Your task to perform on an android device: turn on javascript in the chrome app Image 0: 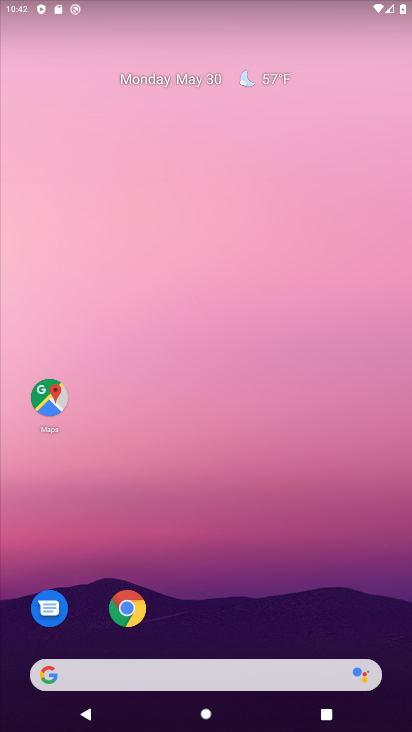
Step 0: drag from (282, 573) to (259, 0)
Your task to perform on an android device: turn on javascript in the chrome app Image 1: 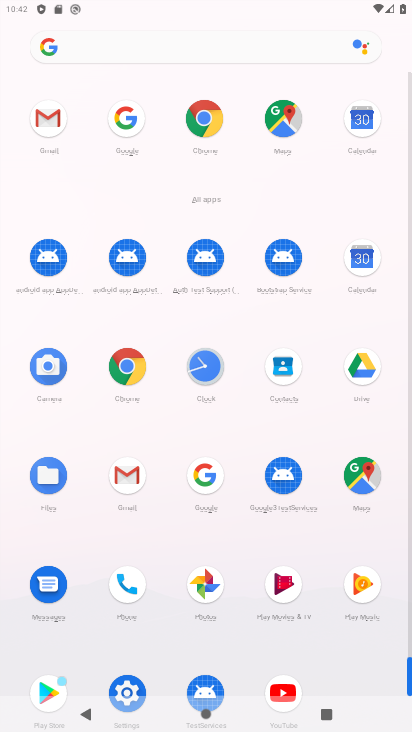
Step 1: drag from (0, 540) to (0, 216)
Your task to perform on an android device: turn on javascript in the chrome app Image 2: 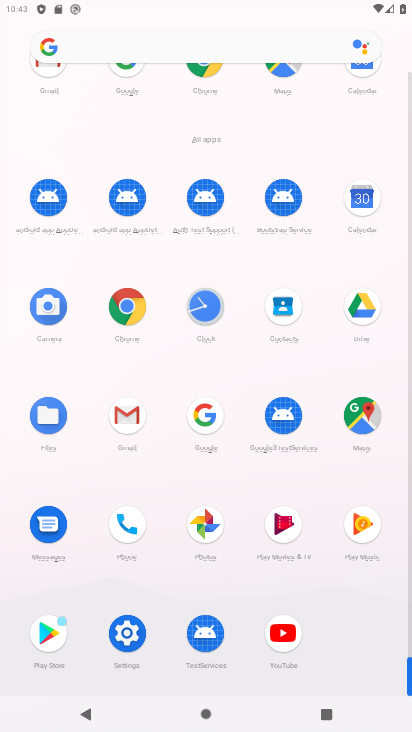
Step 2: click (128, 300)
Your task to perform on an android device: turn on javascript in the chrome app Image 3: 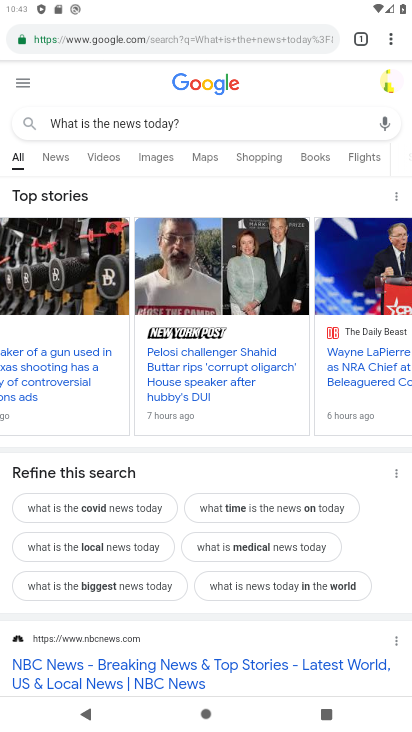
Step 3: drag from (389, 37) to (246, 465)
Your task to perform on an android device: turn on javascript in the chrome app Image 4: 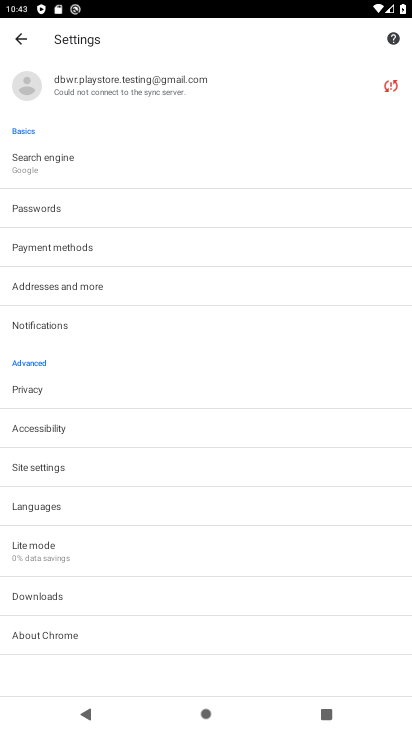
Step 4: click (50, 463)
Your task to perform on an android device: turn on javascript in the chrome app Image 5: 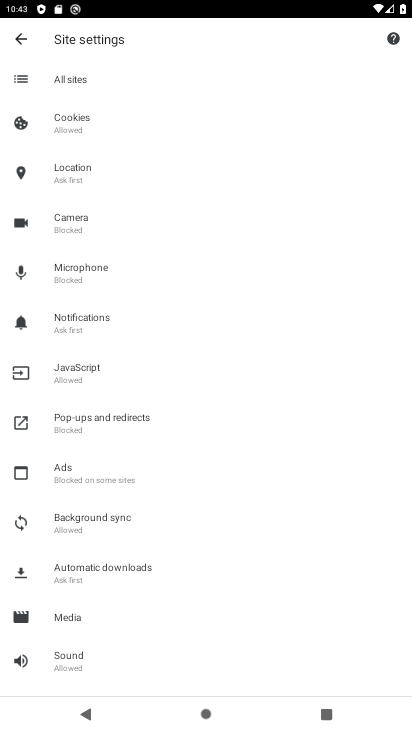
Step 5: task complete